Your task to perform on an android device: manage bookmarks in the chrome app Image 0: 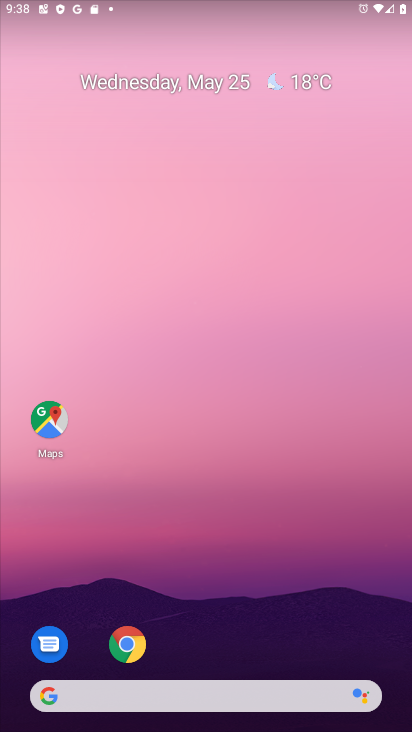
Step 0: press home button
Your task to perform on an android device: manage bookmarks in the chrome app Image 1: 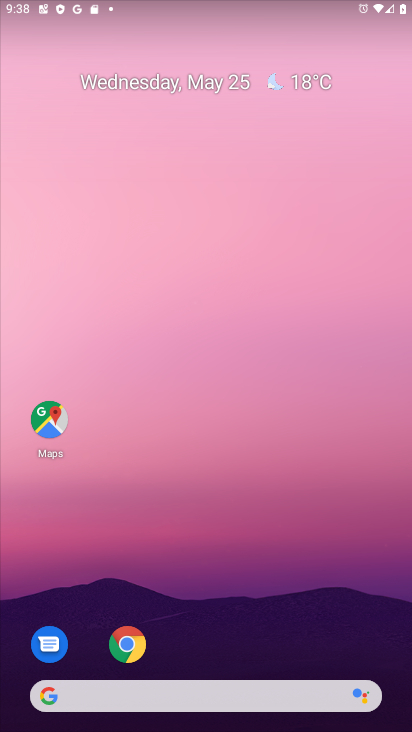
Step 1: click (126, 641)
Your task to perform on an android device: manage bookmarks in the chrome app Image 2: 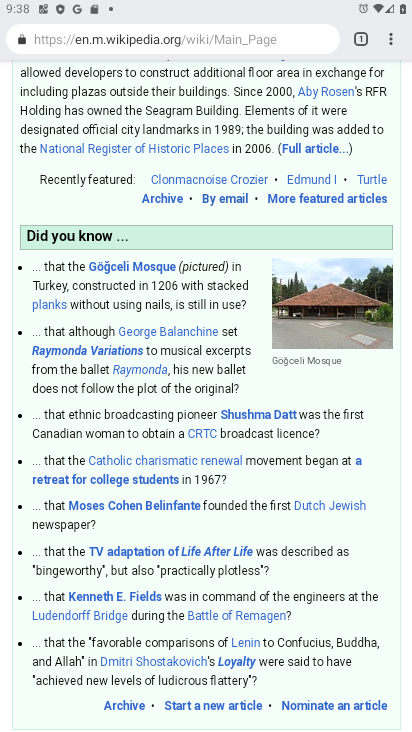
Step 2: click (391, 37)
Your task to perform on an android device: manage bookmarks in the chrome app Image 3: 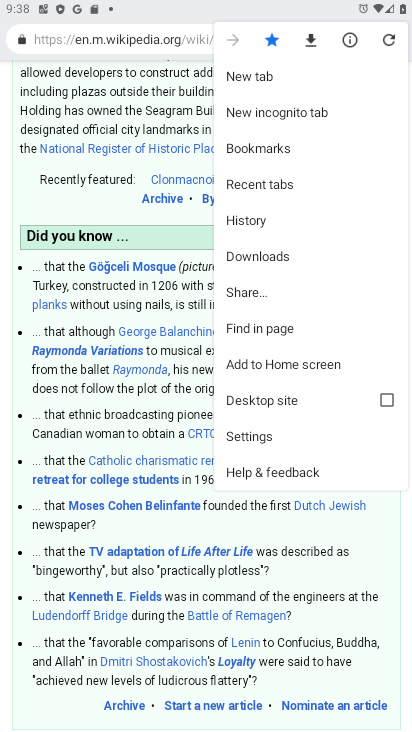
Step 3: click (293, 149)
Your task to perform on an android device: manage bookmarks in the chrome app Image 4: 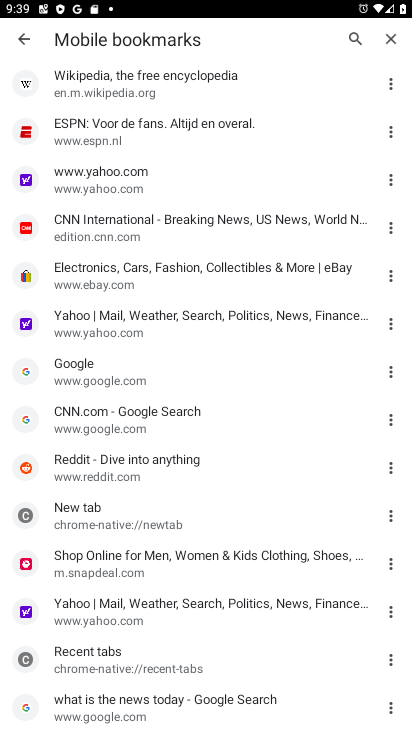
Step 4: click (166, 422)
Your task to perform on an android device: manage bookmarks in the chrome app Image 5: 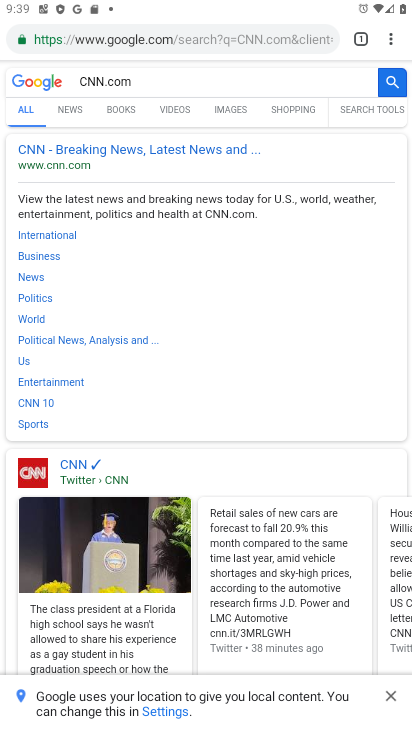
Step 5: task complete